Your task to perform on an android device: toggle location history Image 0: 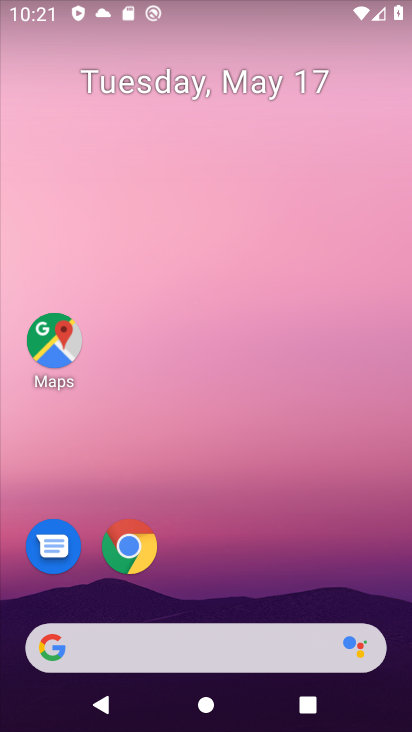
Step 0: drag from (235, 598) to (300, 167)
Your task to perform on an android device: toggle location history Image 1: 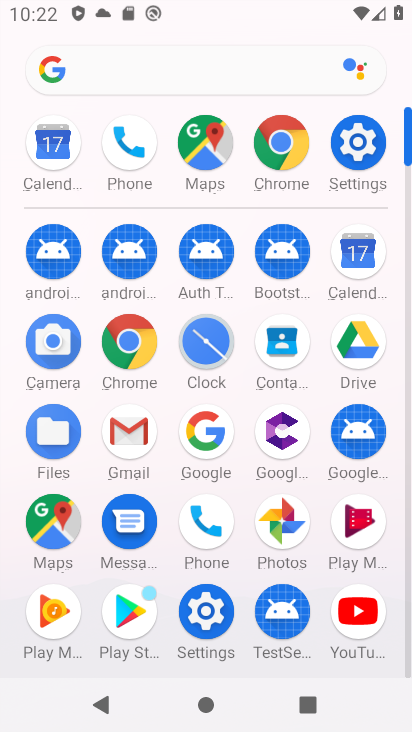
Step 1: click (363, 140)
Your task to perform on an android device: toggle location history Image 2: 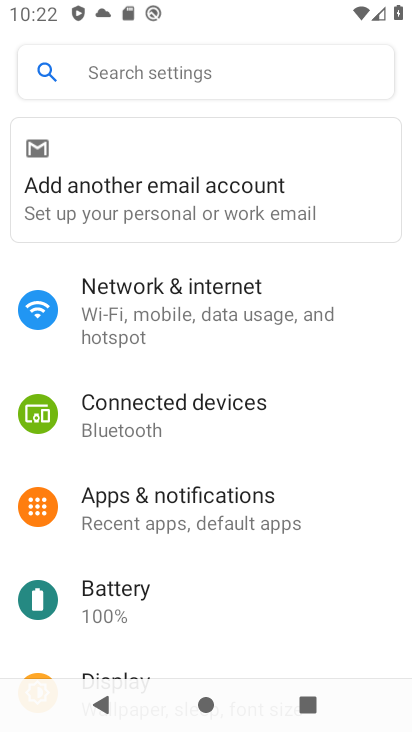
Step 2: drag from (203, 621) to (244, 200)
Your task to perform on an android device: toggle location history Image 3: 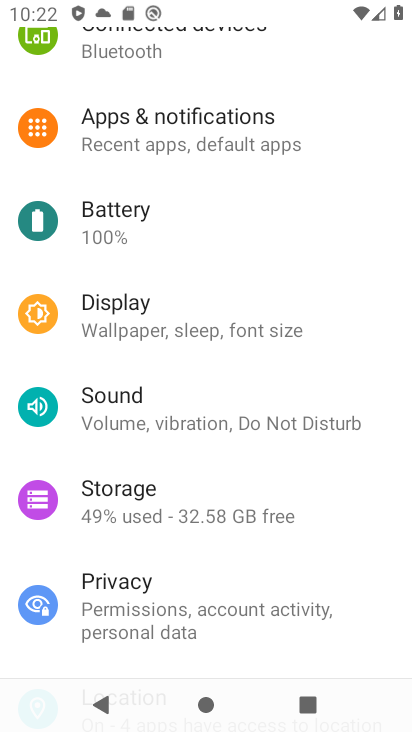
Step 3: drag from (139, 619) to (248, 212)
Your task to perform on an android device: toggle location history Image 4: 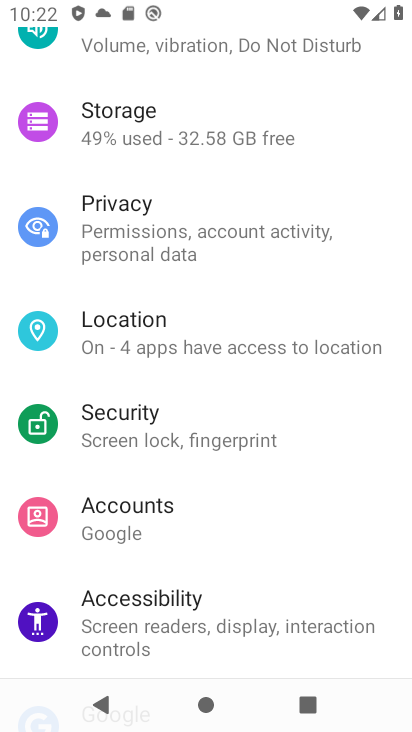
Step 4: click (193, 353)
Your task to perform on an android device: toggle location history Image 5: 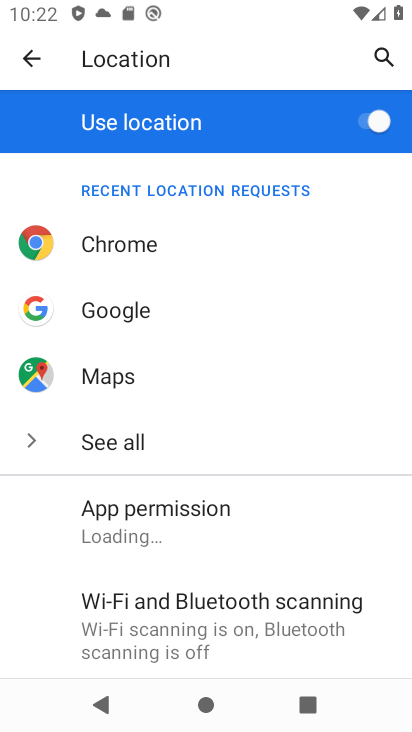
Step 5: drag from (186, 558) to (280, 236)
Your task to perform on an android device: toggle location history Image 6: 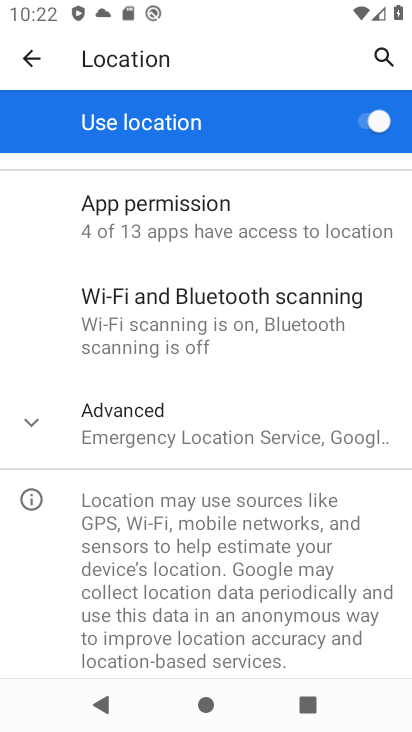
Step 6: click (182, 427)
Your task to perform on an android device: toggle location history Image 7: 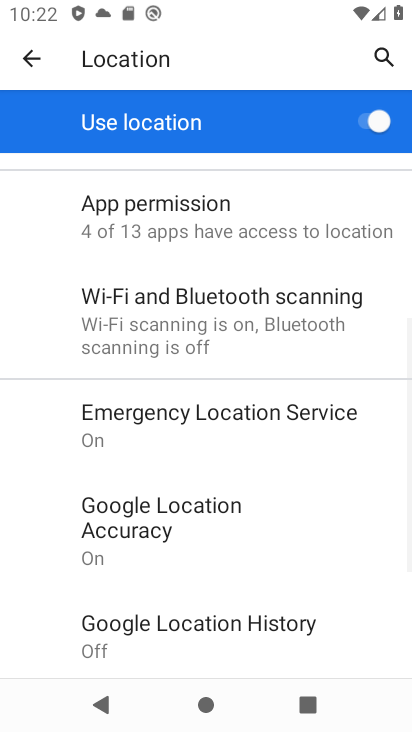
Step 7: click (97, 640)
Your task to perform on an android device: toggle location history Image 8: 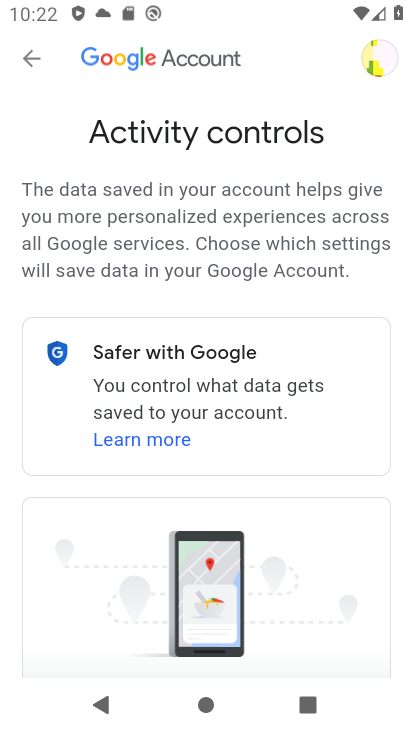
Step 8: drag from (282, 602) to (329, 178)
Your task to perform on an android device: toggle location history Image 9: 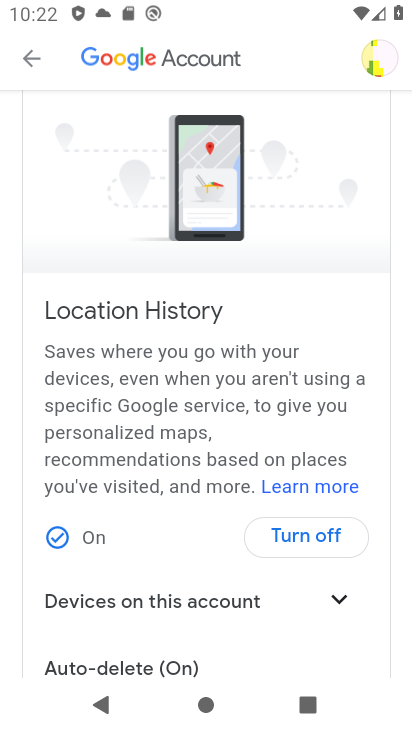
Step 9: click (297, 529)
Your task to perform on an android device: toggle location history Image 10: 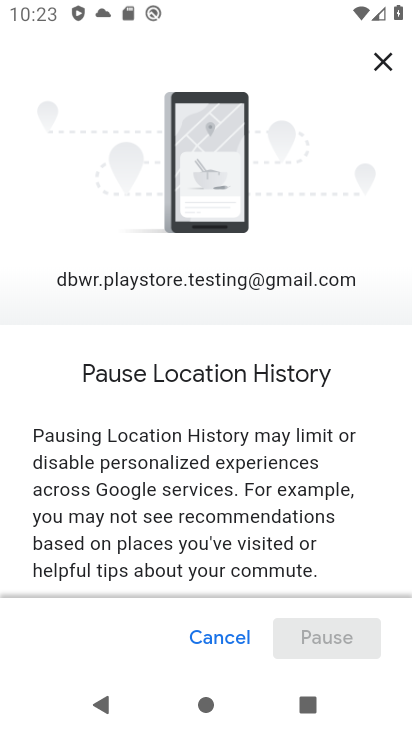
Step 10: drag from (266, 538) to (321, 184)
Your task to perform on an android device: toggle location history Image 11: 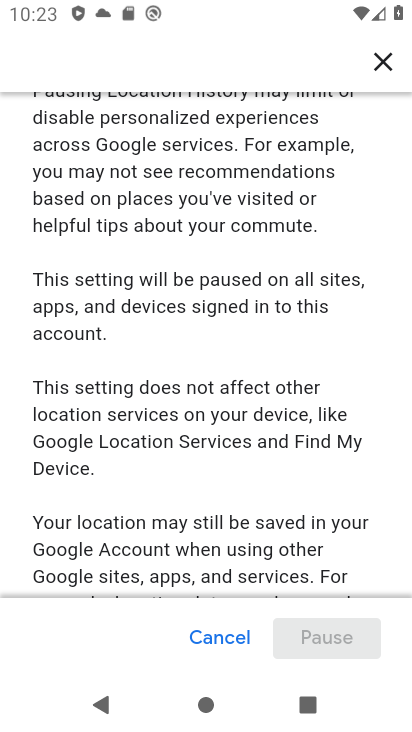
Step 11: drag from (222, 486) to (282, 148)
Your task to perform on an android device: toggle location history Image 12: 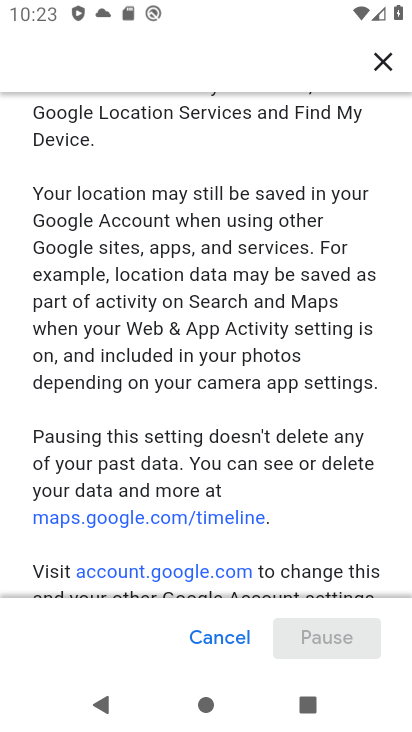
Step 12: drag from (261, 491) to (330, 110)
Your task to perform on an android device: toggle location history Image 13: 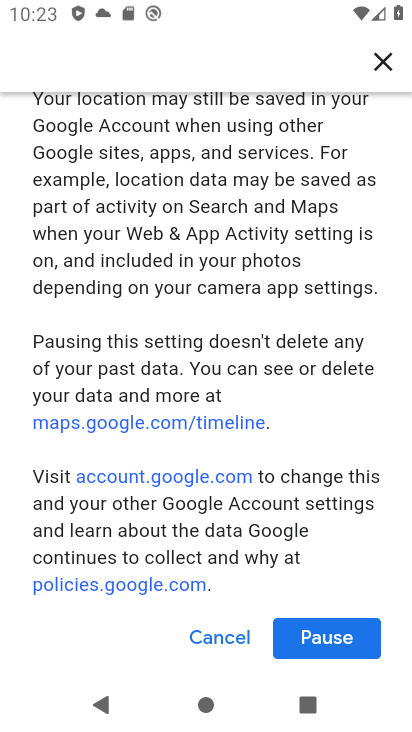
Step 13: click (323, 643)
Your task to perform on an android device: toggle location history Image 14: 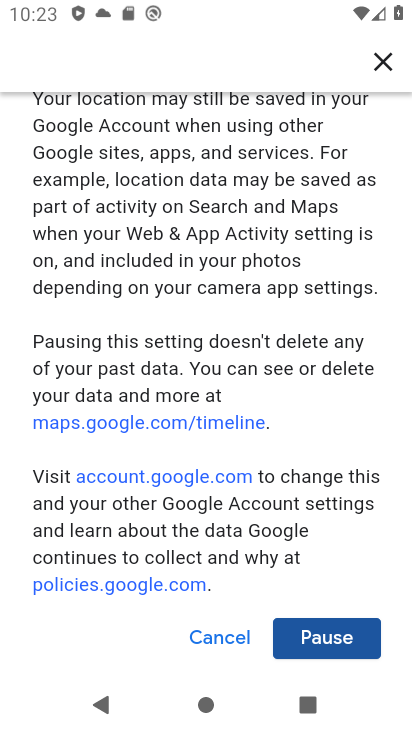
Step 14: click (328, 627)
Your task to perform on an android device: toggle location history Image 15: 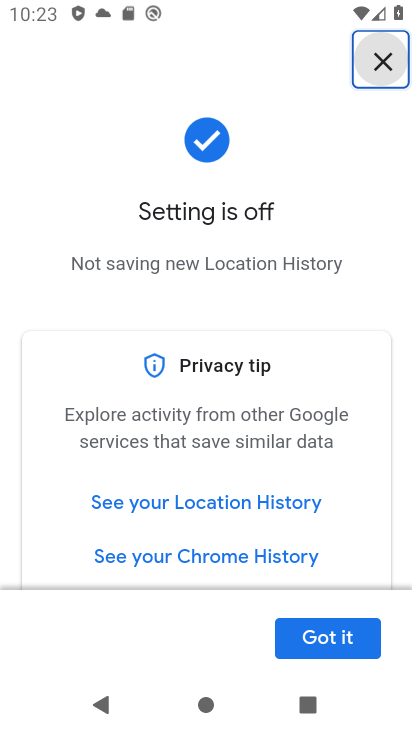
Step 15: task complete